Your task to perform on an android device: Open privacy settings Image 0: 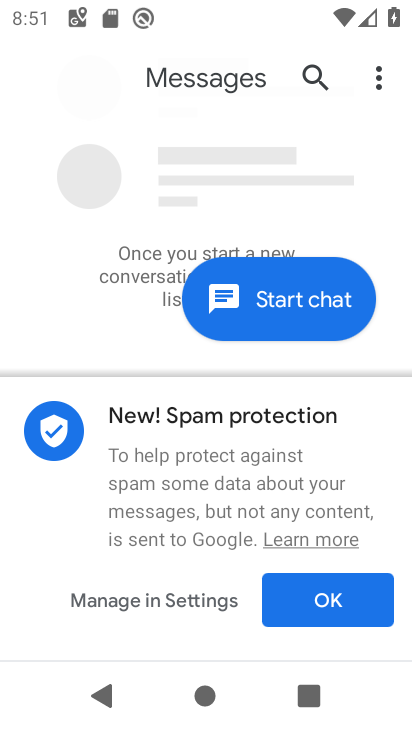
Step 0: press home button
Your task to perform on an android device: Open privacy settings Image 1: 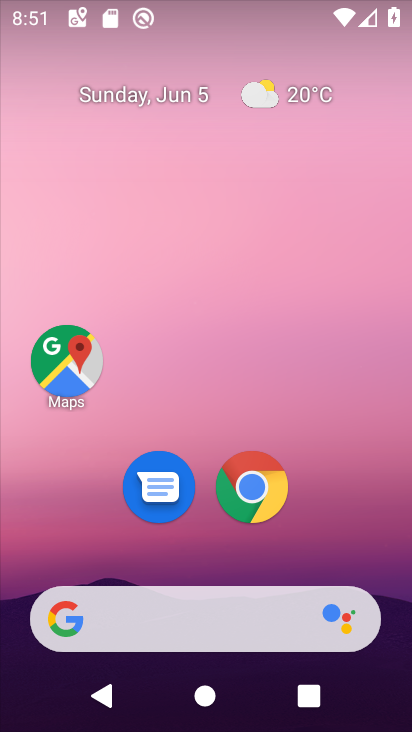
Step 1: drag from (217, 476) to (217, 212)
Your task to perform on an android device: Open privacy settings Image 2: 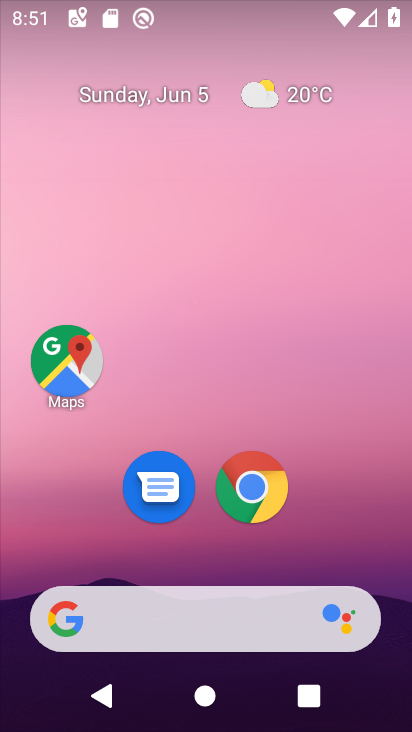
Step 2: drag from (236, 565) to (229, 164)
Your task to perform on an android device: Open privacy settings Image 3: 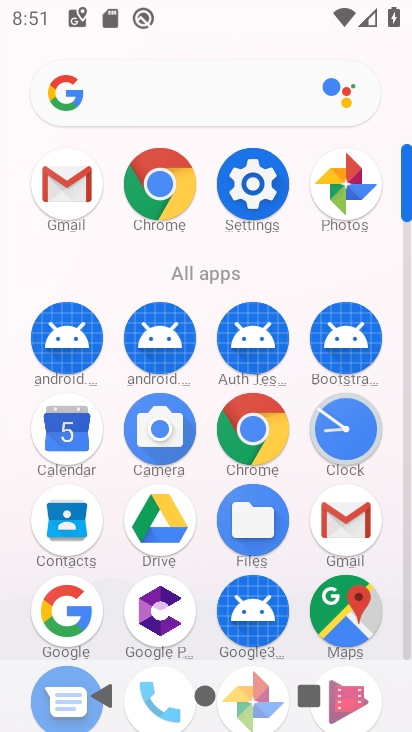
Step 3: click (258, 169)
Your task to perform on an android device: Open privacy settings Image 4: 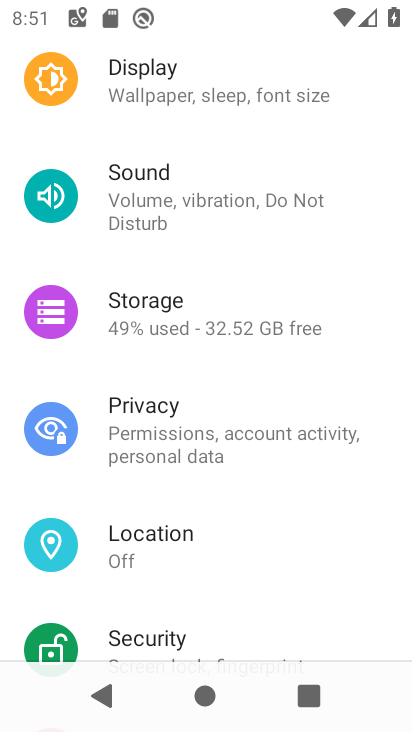
Step 4: click (192, 436)
Your task to perform on an android device: Open privacy settings Image 5: 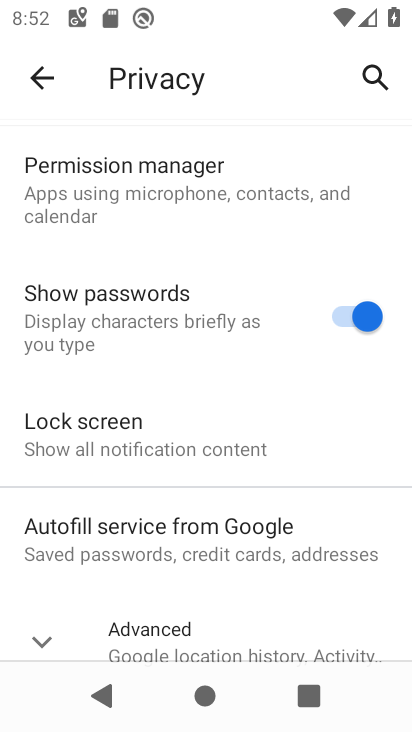
Step 5: task complete